Your task to perform on an android device: Open Maps and search for coffee Image 0: 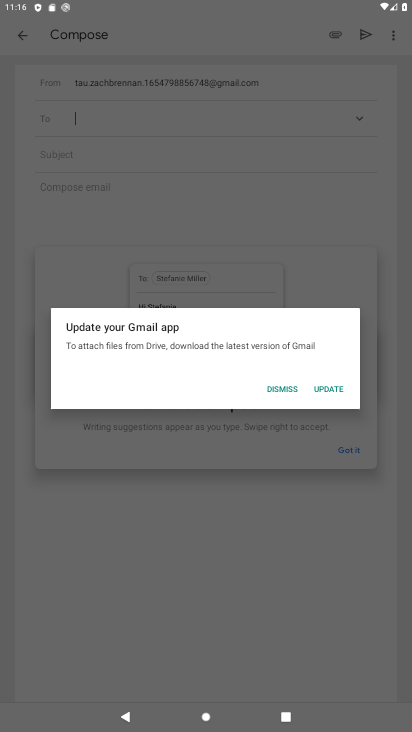
Step 0: drag from (237, 620) to (259, 587)
Your task to perform on an android device: Open Maps and search for coffee Image 1: 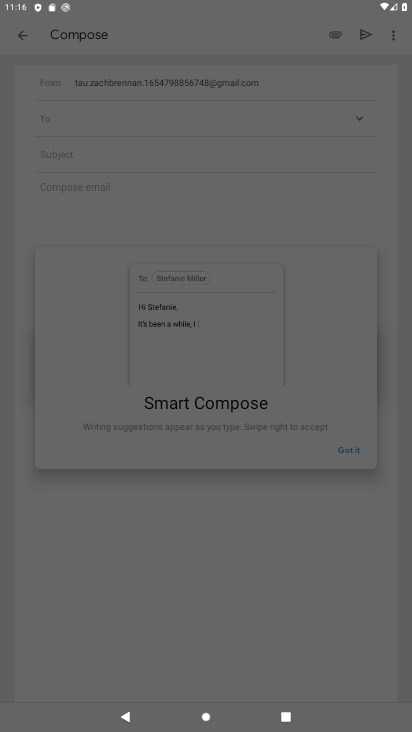
Step 1: press home button
Your task to perform on an android device: Open Maps and search for coffee Image 2: 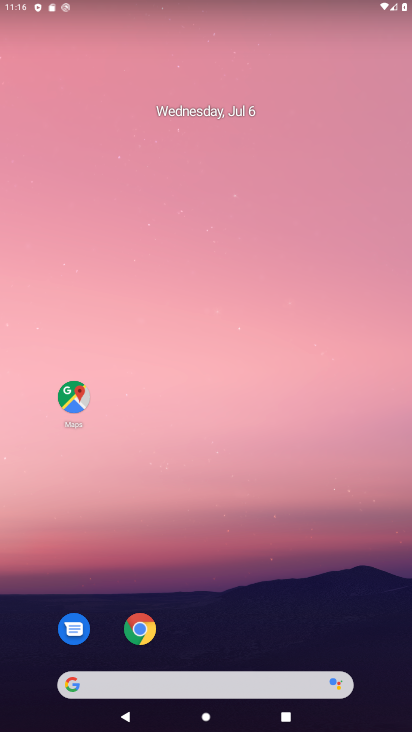
Step 2: click (70, 397)
Your task to perform on an android device: Open Maps and search for coffee Image 3: 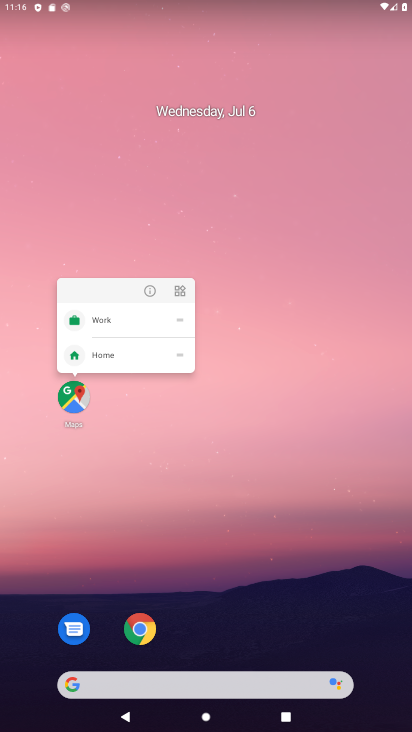
Step 3: click (70, 397)
Your task to perform on an android device: Open Maps and search for coffee Image 4: 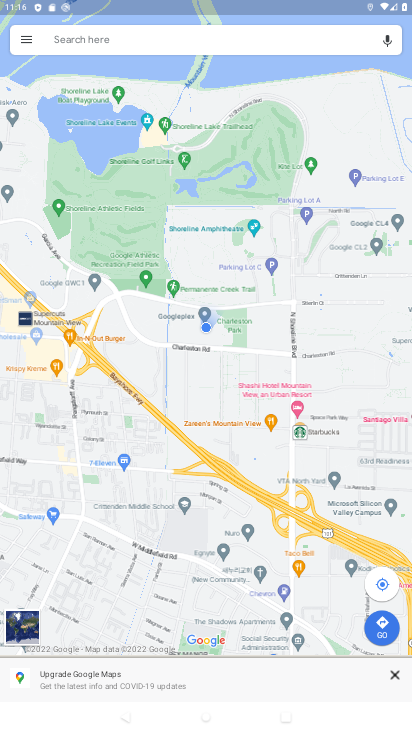
Step 4: click (255, 42)
Your task to perform on an android device: Open Maps and search for coffee Image 5: 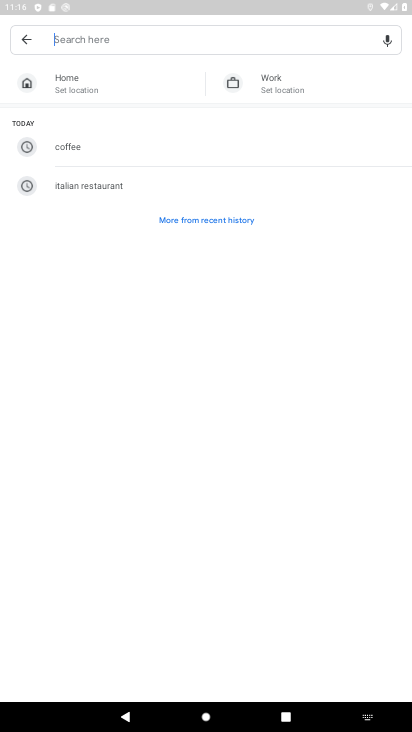
Step 5: type "coffee"
Your task to perform on an android device: Open Maps and search for coffee Image 6: 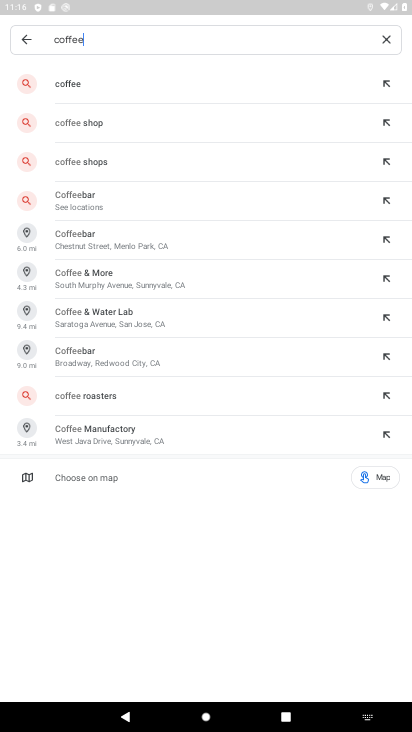
Step 6: click (71, 78)
Your task to perform on an android device: Open Maps and search for coffee Image 7: 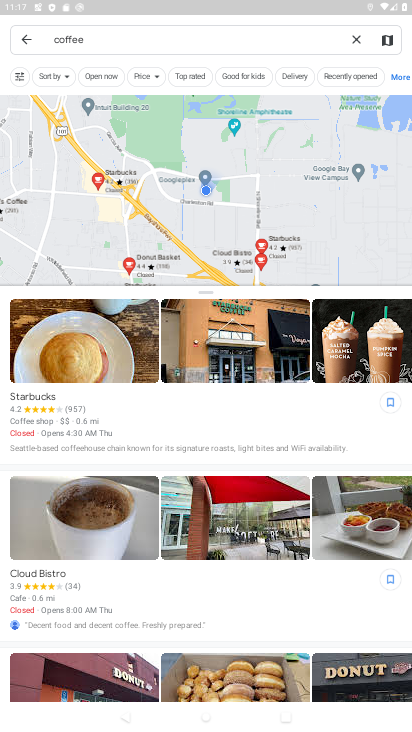
Step 7: task complete